Your task to perform on an android device: Show me the alarms in the clock app Image 0: 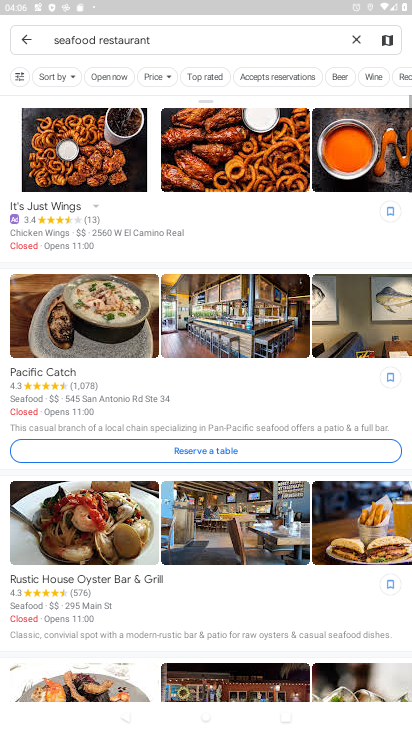
Step 0: press home button
Your task to perform on an android device: Show me the alarms in the clock app Image 1: 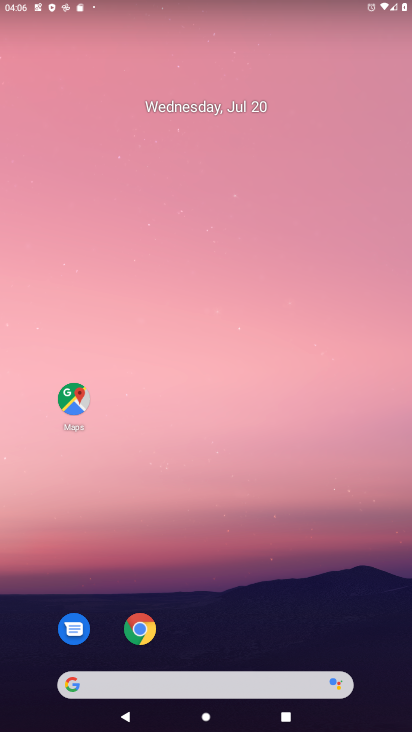
Step 1: drag from (374, 645) to (367, 179)
Your task to perform on an android device: Show me the alarms in the clock app Image 2: 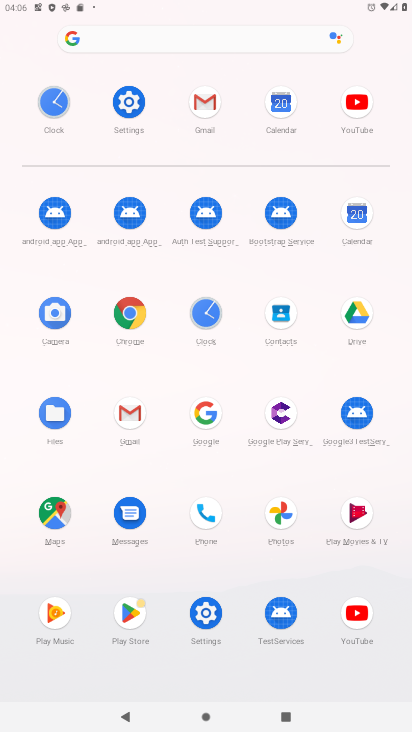
Step 2: click (205, 310)
Your task to perform on an android device: Show me the alarms in the clock app Image 3: 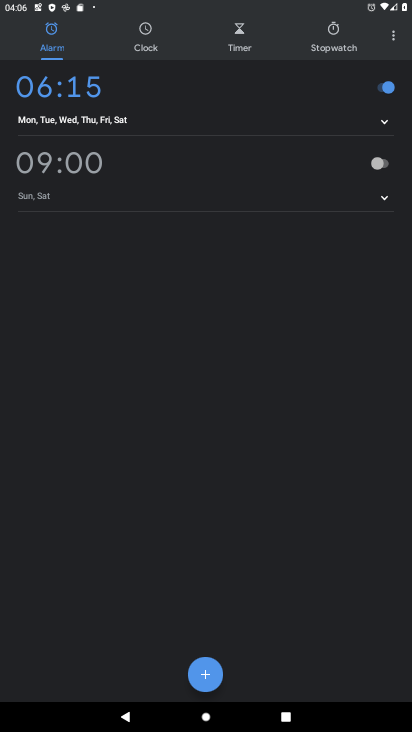
Step 3: task complete